Your task to perform on an android device: Search for pizza restaurants on Maps Image 0: 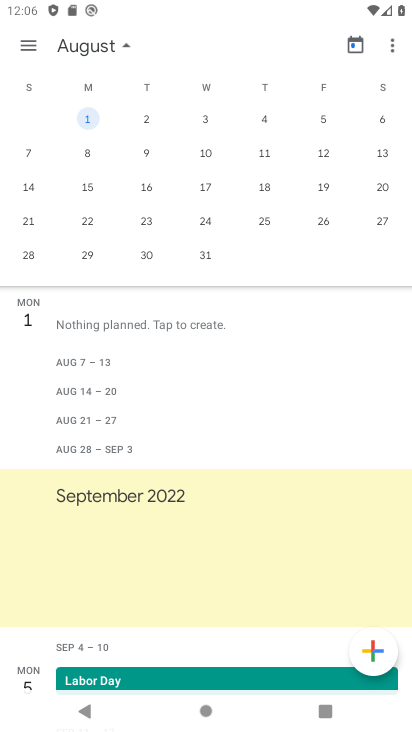
Step 0: press home button
Your task to perform on an android device: Search for pizza restaurants on Maps Image 1: 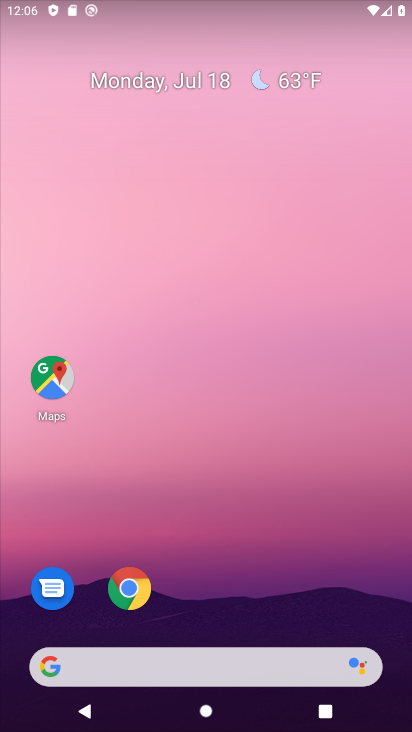
Step 1: drag from (240, 730) to (227, 53)
Your task to perform on an android device: Search for pizza restaurants on Maps Image 2: 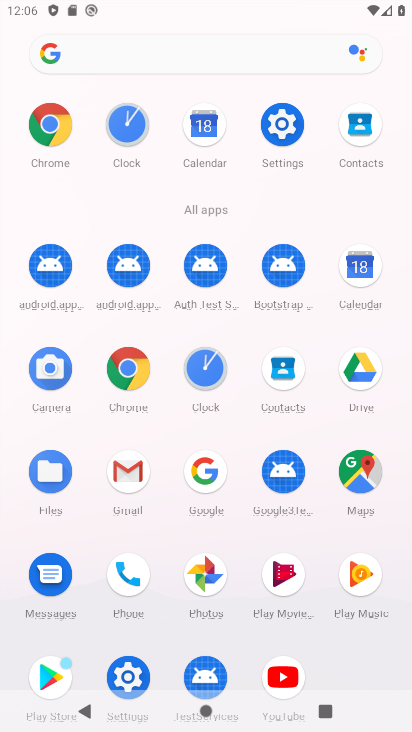
Step 2: click (357, 479)
Your task to perform on an android device: Search for pizza restaurants on Maps Image 3: 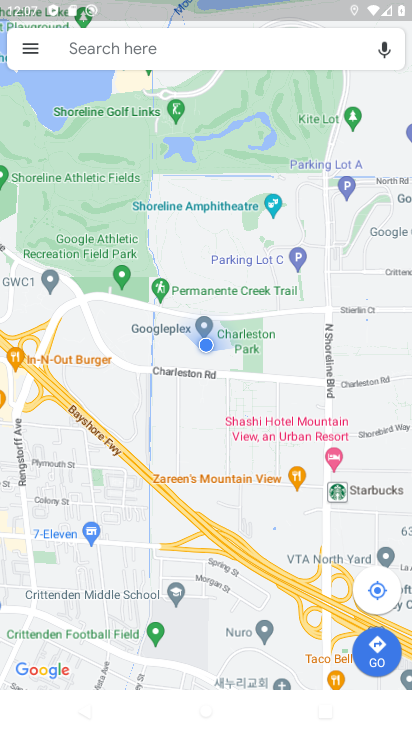
Step 3: click (178, 54)
Your task to perform on an android device: Search for pizza restaurants on Maps Image 4: 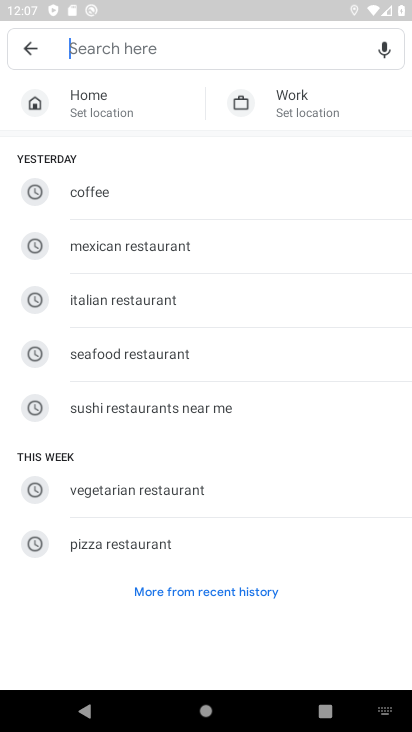
Step 4: type "pizza restaurants"
Your task to perform on an android device: Search for pizza restaurants on Maps Image 5: 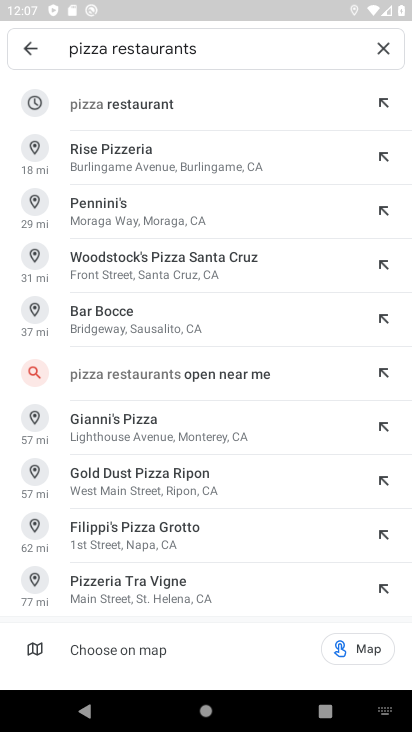
Step 5: click (157, 100)
Your task to perform on an android device: Search for pizza restaurants on Maps Image 6: 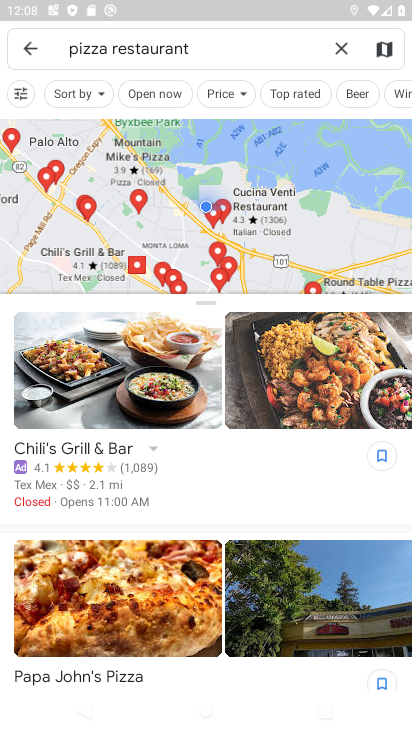
Step 6: task complete